Your task to perform on an android device: Open Google Maps Image 0: 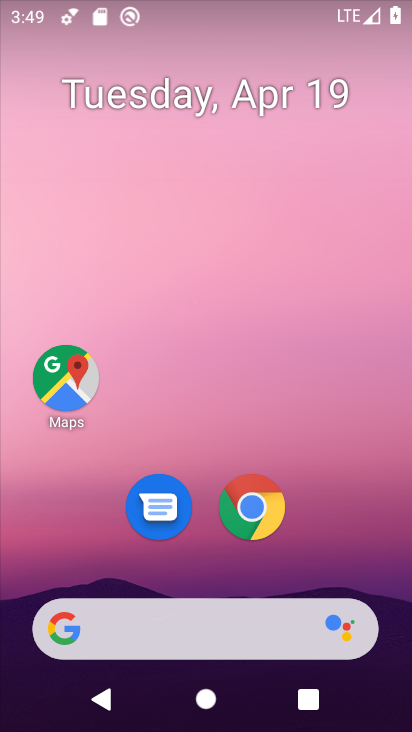
Step 0: drag from (329, 529) to (410, 222)
Your task to perform on an android device: Open Google Maps Image 1: 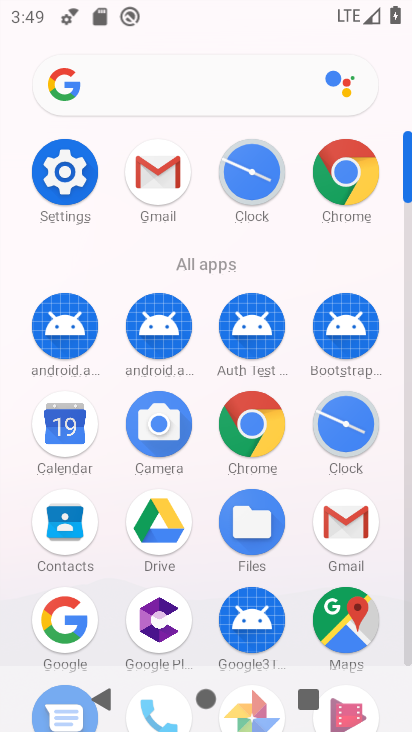
Step 1: click (349, 609)
Your task to perform on an android device: Open Google Maps Image 2: 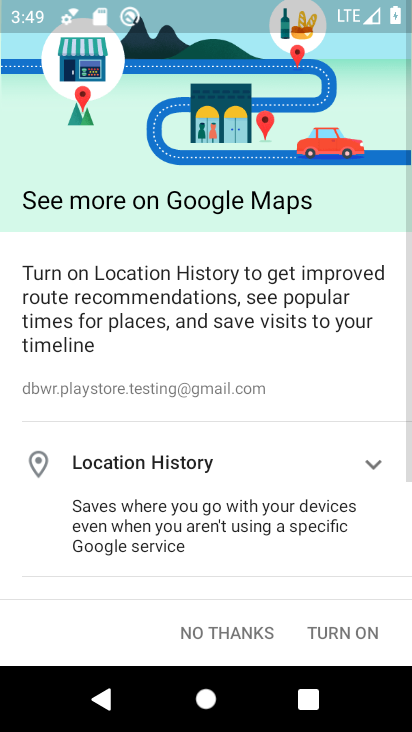
Step 2: click (232, 628)
Your task to perform on an android device: Open Google Maps Image 3: 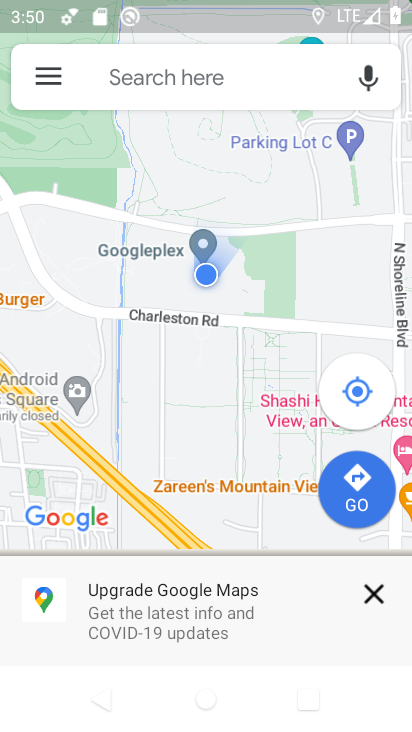
Step 3: task complete